Your task to perform on an android device: toggle sleep mode Image 0: 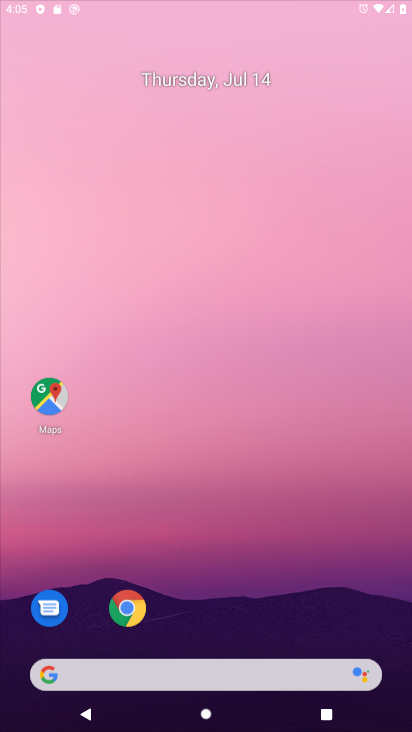
Step 0: click (261, 31)
Your task to perform on an android device: toggle sleep mode Image 1: 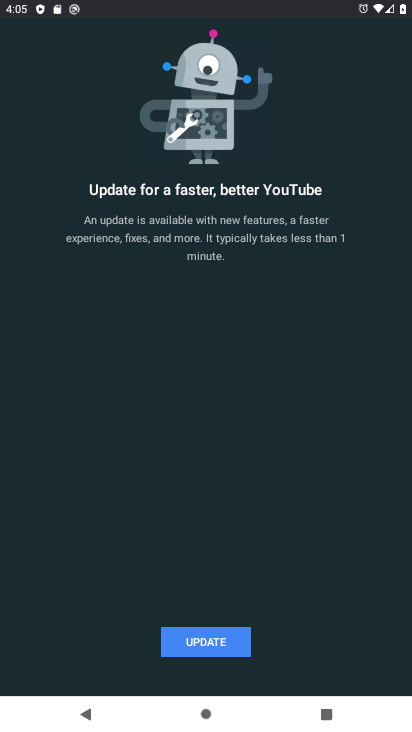
Step 1: press home button
Your task to perform on an android device: toggle sleep mode Image 2: 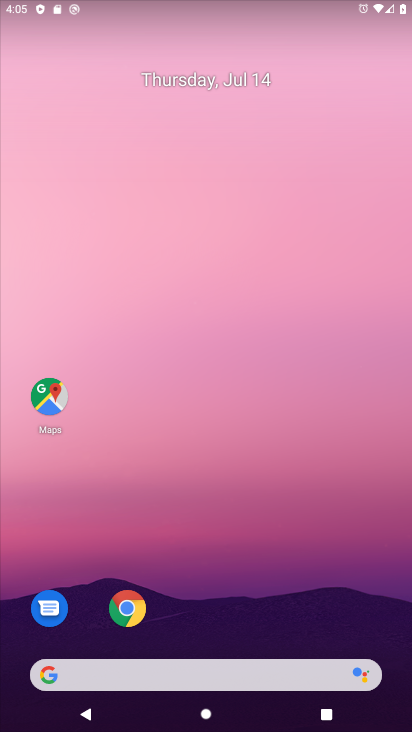
Step 2: drag from (306, 526) to (252, 0)
Your task to perform on an android device: toggle sleep mode Image 3: 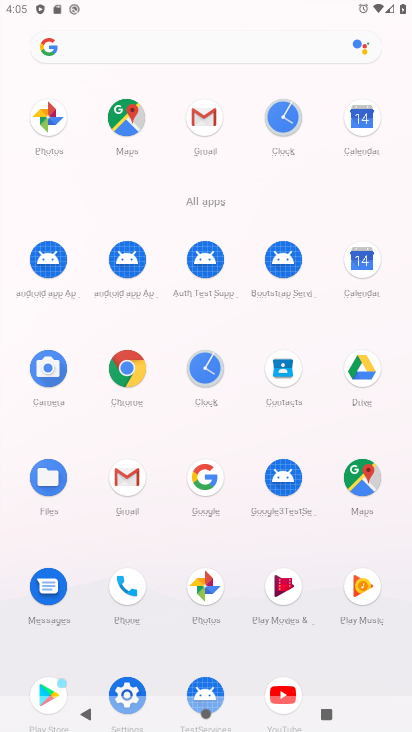
Step 3: click (128, 692)
Your task to perform on an android device: toggle sleep mode Image 4: 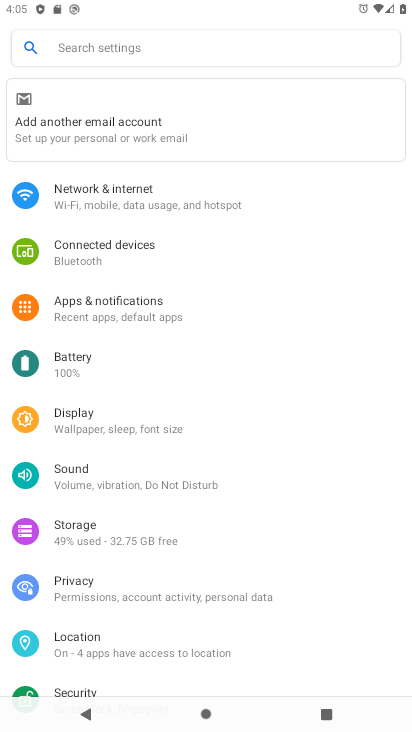
Step 4: drag from (118, 523) to (147, 177)
Your task to perform on an android device: toggle sleep mode Image 5: 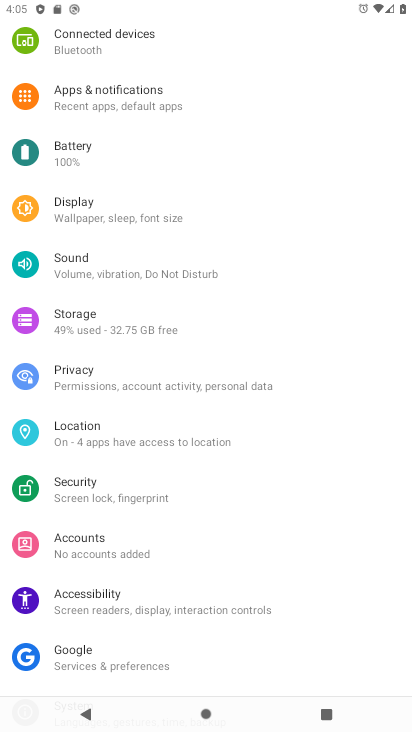
Step 5: drag from (147, 178) to (248, 607)
Your task to perform on an android device: toggle sleep mode Image 6: 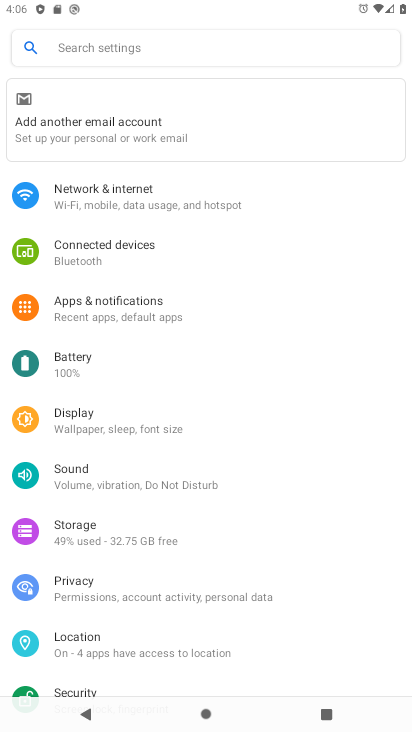
Step 6: click (90, 415)
Your task to perform on an android device: toggle sleep mode Image 7: 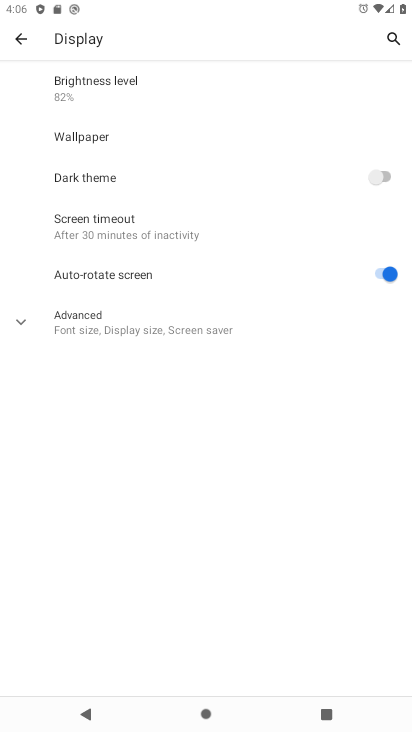
Step 7: click (110, 218)
Your task to perform on an android device: toggle sleep mode Image 8: 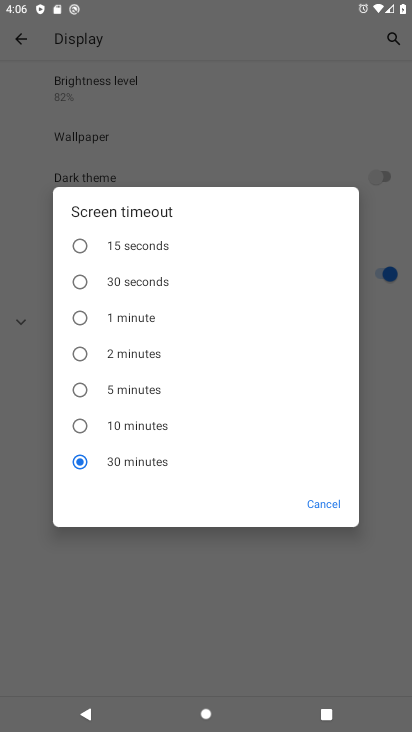
Step 8: click (129, 387)
Your task to perform on an android device: toggle sleep mode Image 9: 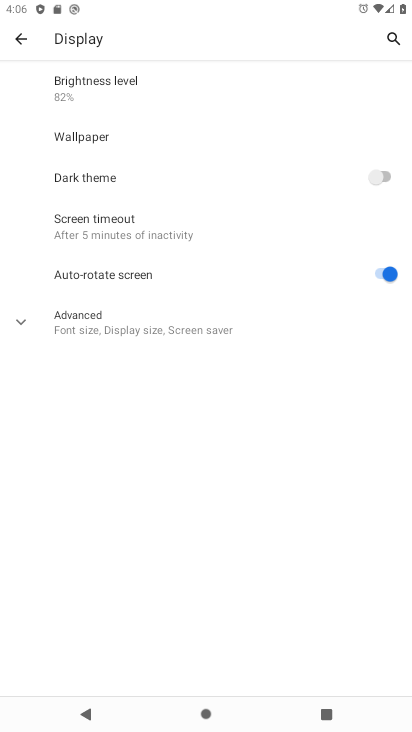
Step 9: task complete